Your task to perform on an android device: Set the phone to "Do not disturb". Image 0: 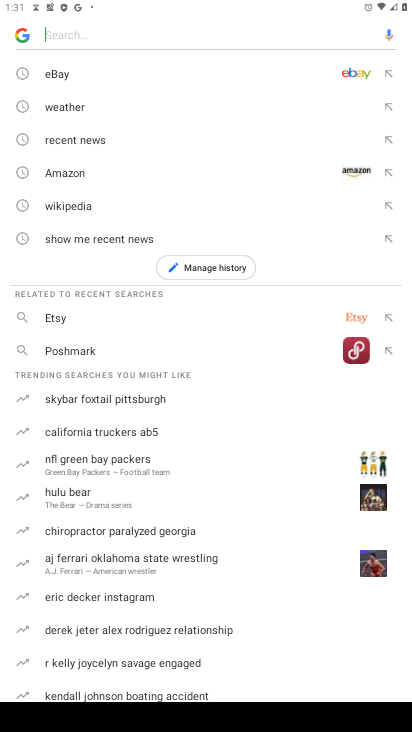
Step 0: press home button
Your task to perform on an android device: Set the phone to "Do not disturb". Image 1: 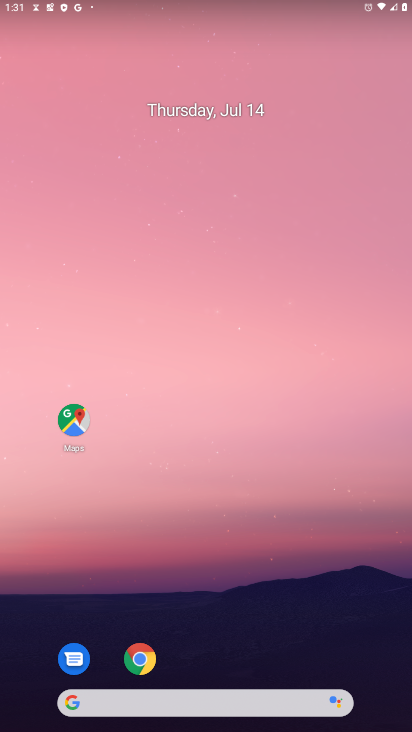
Step 1: drag from (46, 697) to (213, 290)
Your task to perform on an android device: Set the phone to "Do not disturb". Image 2: 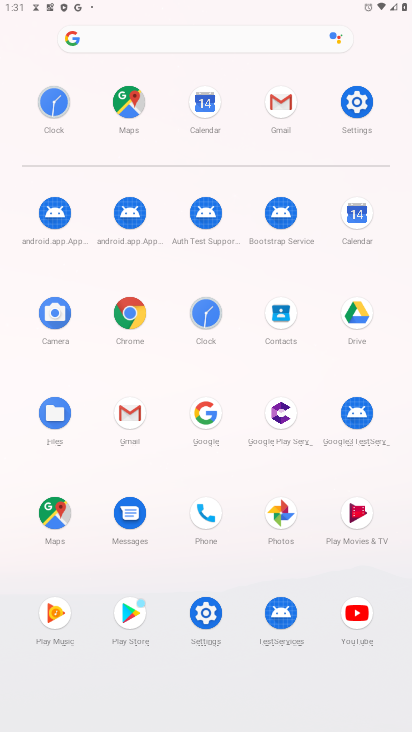
Step 2: click (206, 610)
Your task to perform on an android device: Set the phone to "Do not disturb". Image 3: 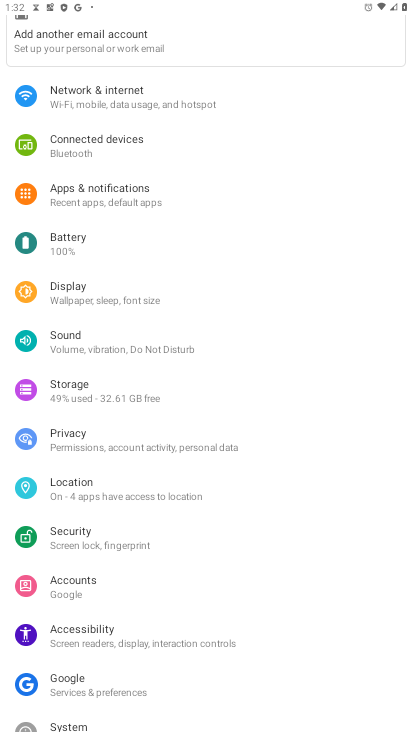
Step 3: click (130, 350)
Your task to perform on an android device: Set the phone to "Do not disturb". Image 4: 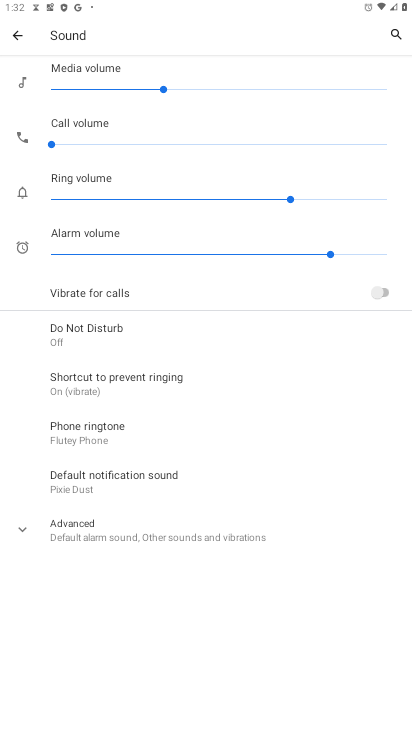
Step 4: click (111, 316)
Your task to perform on an android device: Set the phone to "Do not disturb". Image 5: 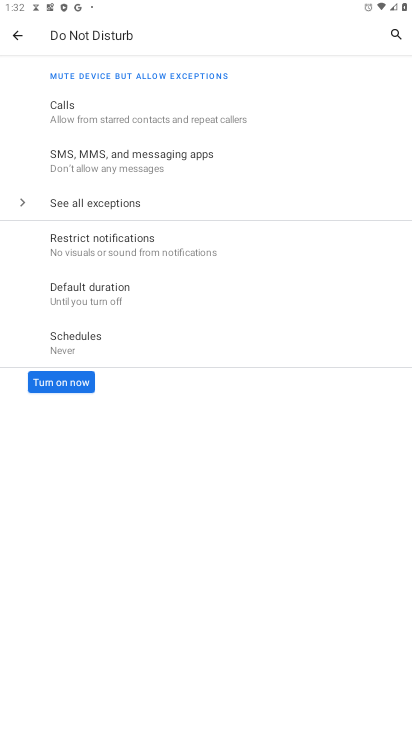
Step 5: click (70, 385)
Your task to perform on an android device: Set the phone to "Do not disturb". Image 6: 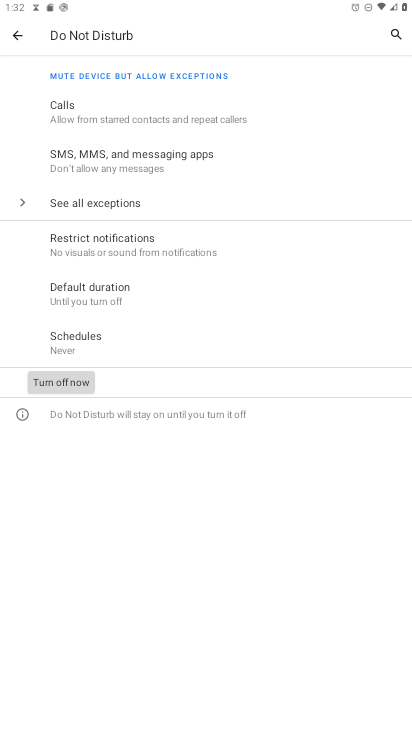
Step 6: task complete